Your task to perform on an android device: see sites visited before in the chrome app Image 0: 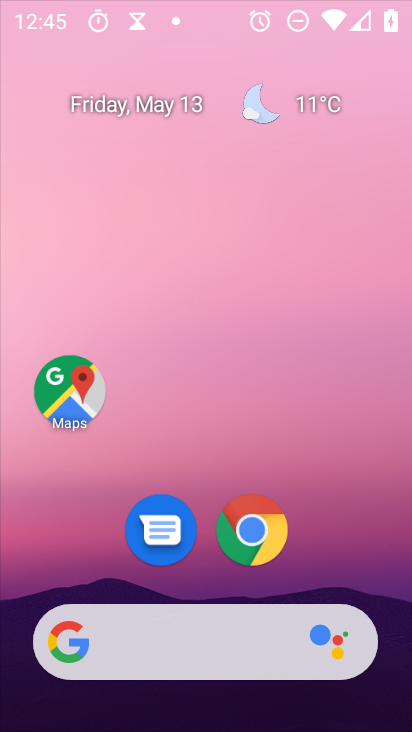
Step 0: press home button
Your task to perform on an android device: see sites visited before in the chrome app Image 1: 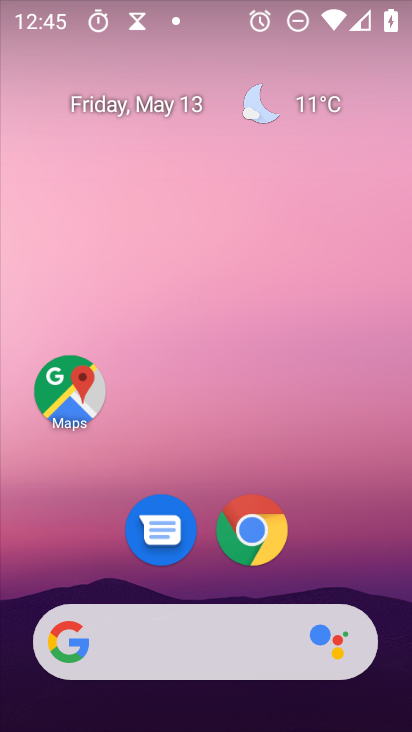
Step 1: click (261, 547)
Your task to perform on an android device: see sites visited before in the chrome app Image 2: 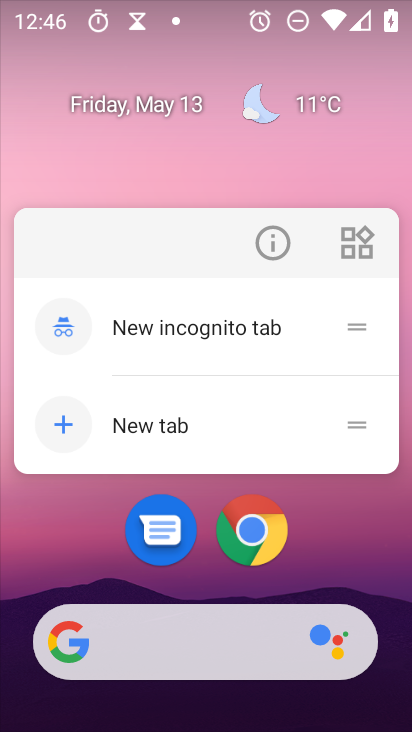
Step 2: click (240, 531)
Your task to perform on an android device: see sites visited before in the chrome app Image 3: 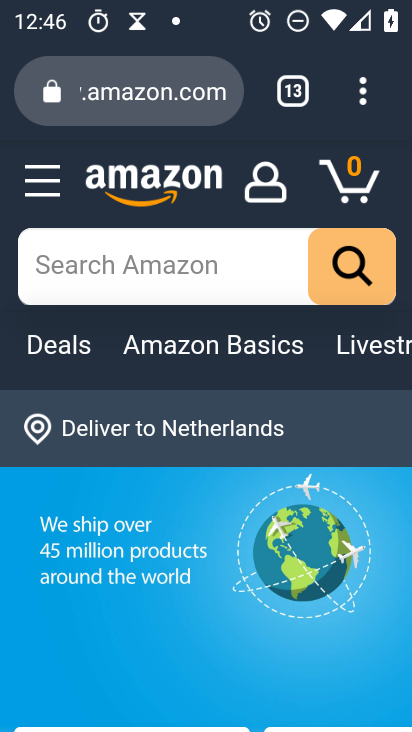
Step 3: task complete